Your task to perform on an android device: find which apps use the phone's location Image 0: 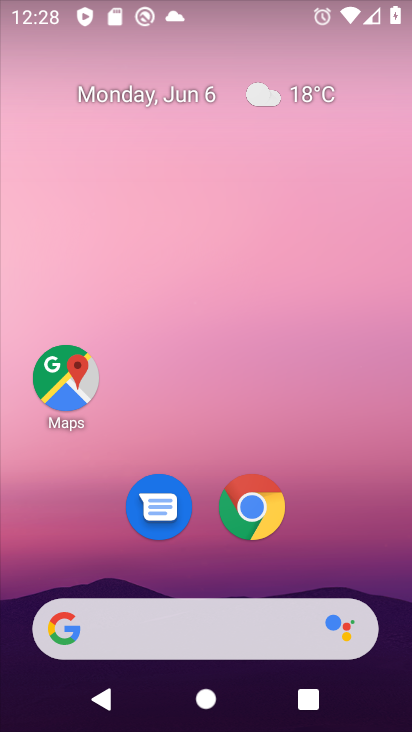
Step 0: drag from (205, 567) to (271, 96)
Your task to perform on an android device: find which apps use the phone's location Image 1: 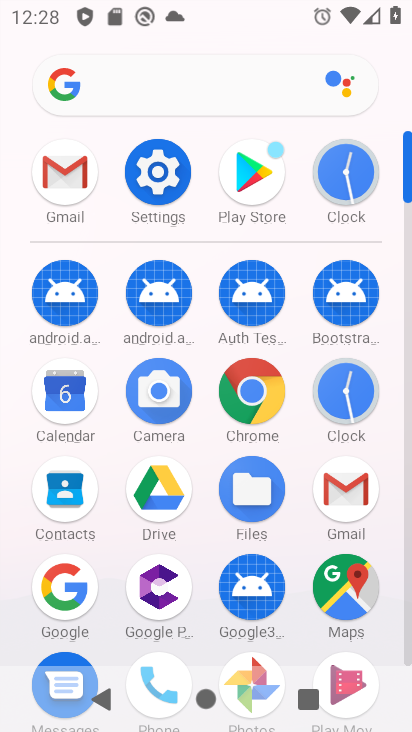
Step 1: click (169, 173)
Your task to perform on an android device: find which apps use the phone's location Image 2: 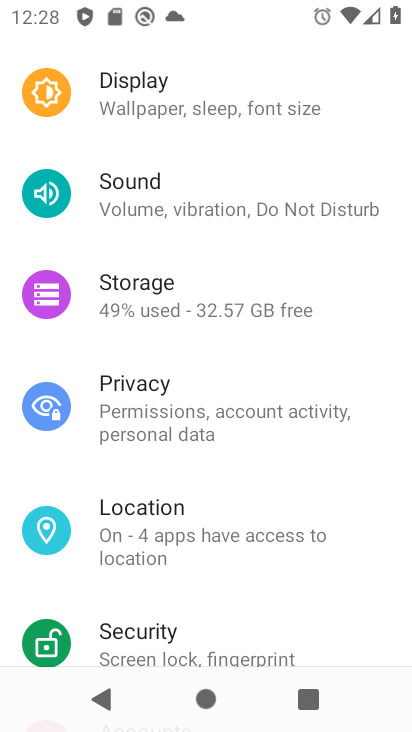
Step 2: click (173, 531)
Your task to perform on an android device: find which apps use the phone's location Image 3: 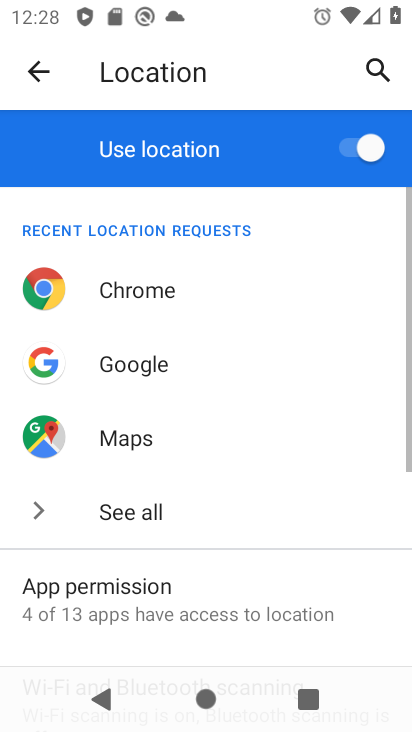
Step 3: click (157, 597)
Your task to perform on an android device: find which apps use the phone's location Image 4: 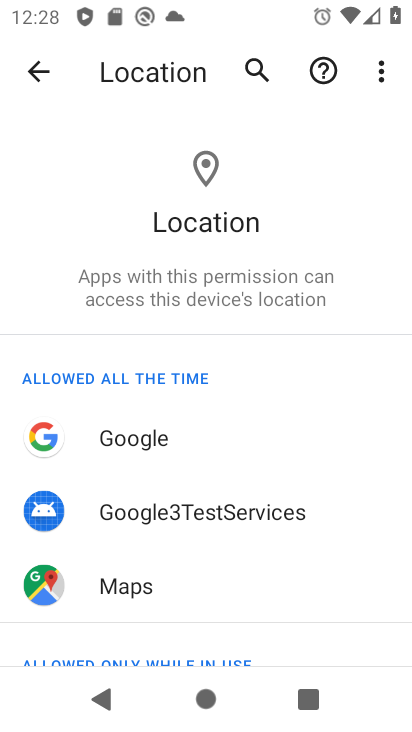
Step 4: task complete